Your task to perform on an android device: change notifications settings Image 0: 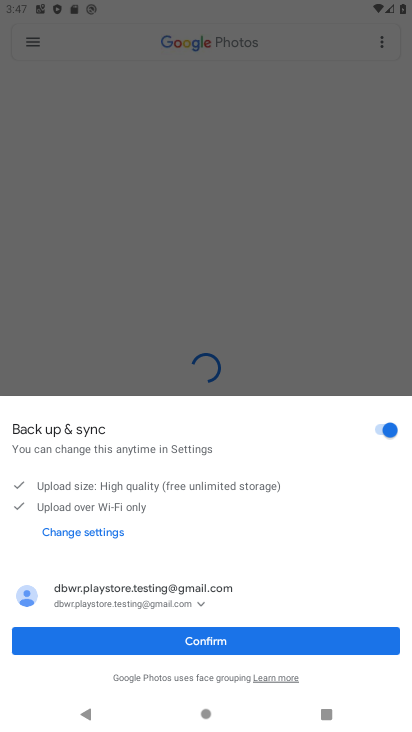
Step 0: press back button
Your task to perform on an android device: change notifications settings Image 1: 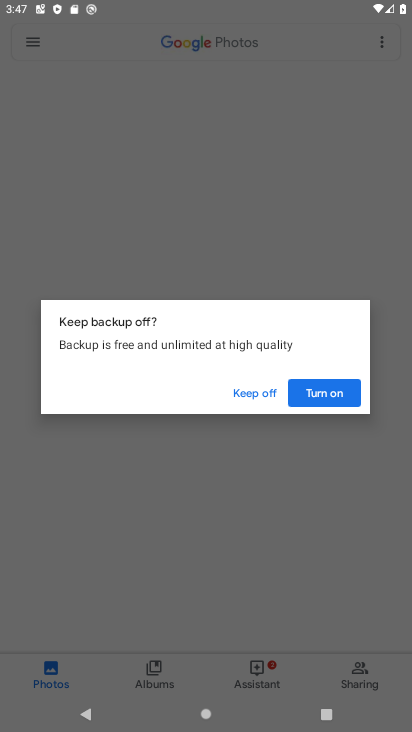
Step 1: press home button
Your task to perform on an android device: change notifications settings Image 2: 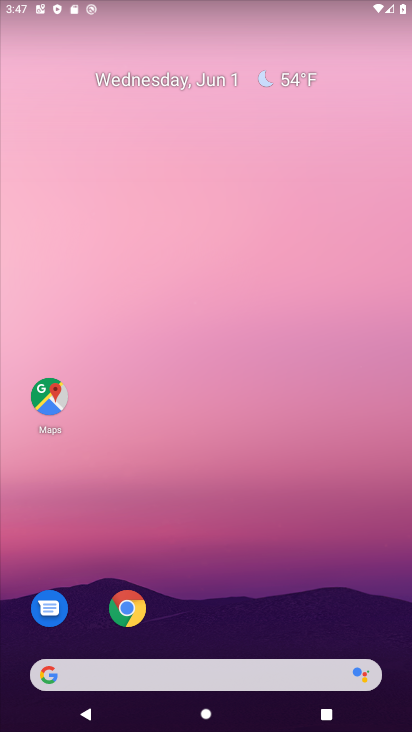
Step 2: drag from (157, 709) to (218, 0)
Your task to perform on an android device: change notifications settings Image 3: 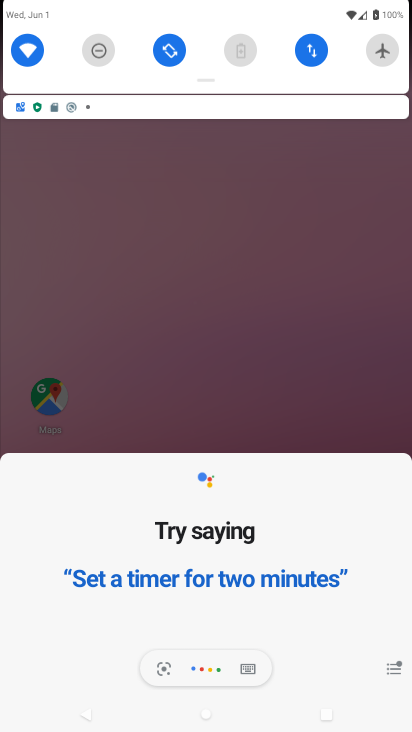
Step 3: drag from (146, 719) to (160, 65)
Your task to perform on an android device: change notifications settings Image 4: 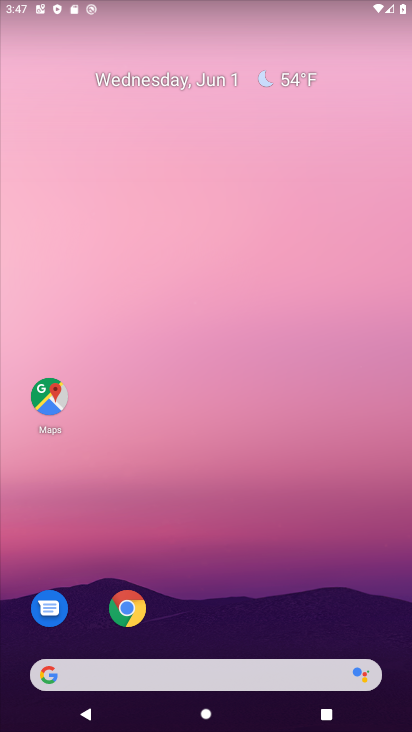
Step 4: press back button
Your task to perform on an android device: change notifications settings Image 5: 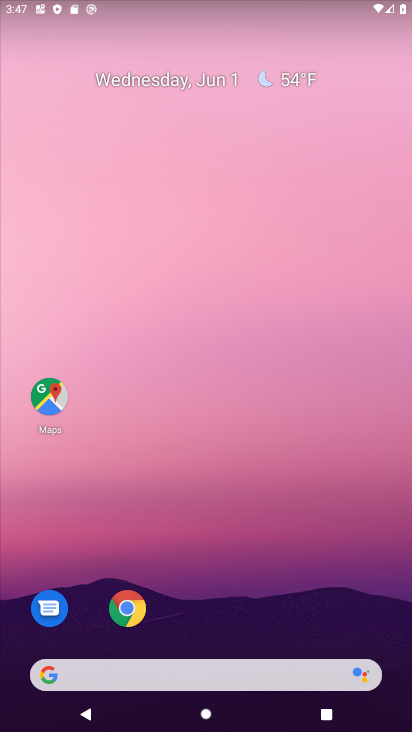
Step 5: drag from (186, 1) to (181, 602)
Your task to perform on an android device: change notifications settings Image 6: 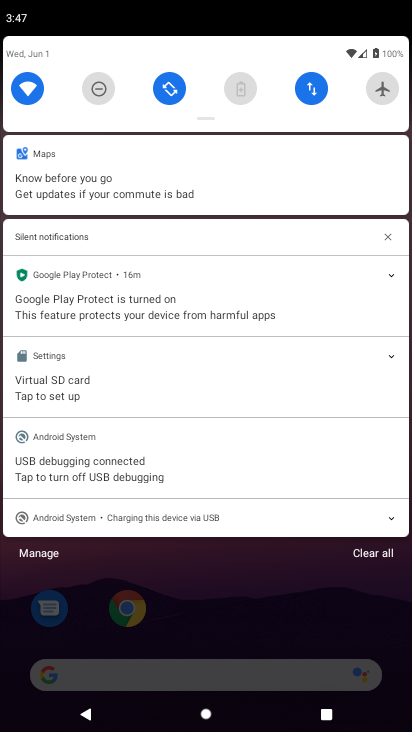
Step 6: drag from (219, 125) to (213, 498)
Your task to perform on an android device: change notifications settings Image 7: 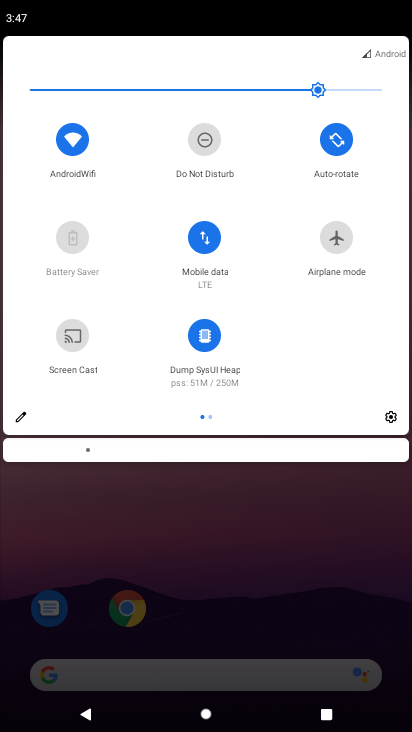
Step 7: click (390, 416)
Your task to perform on an android device: change notifications settings Image 8: 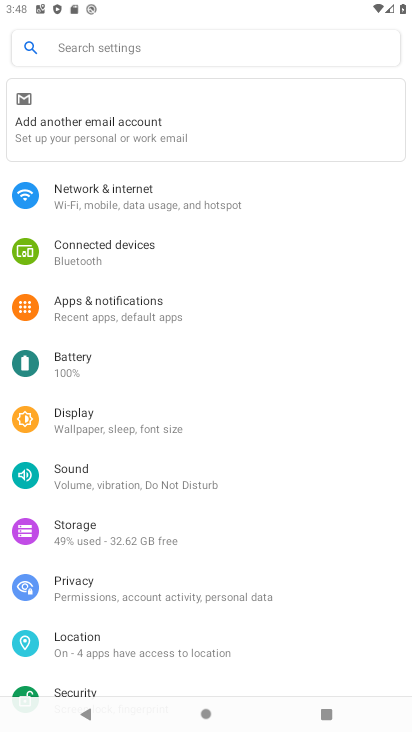
Step 8: click (174, 332)
Your task to perform on an android device: change notifications settings Image 9: 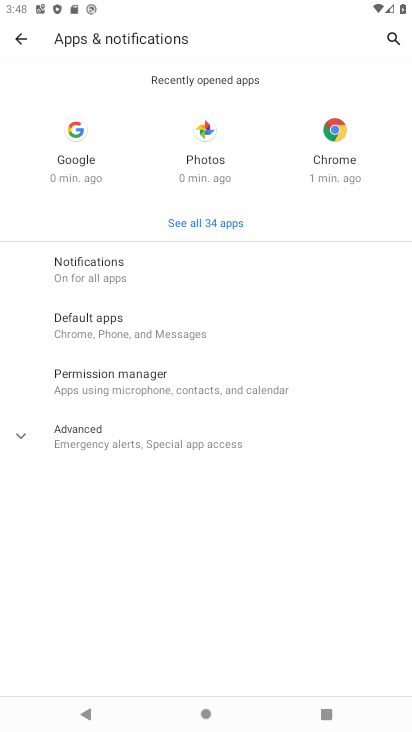
Step 9: task complete